Your task to perform on an android device: Search for Italian restaurants on Maps Image 0: 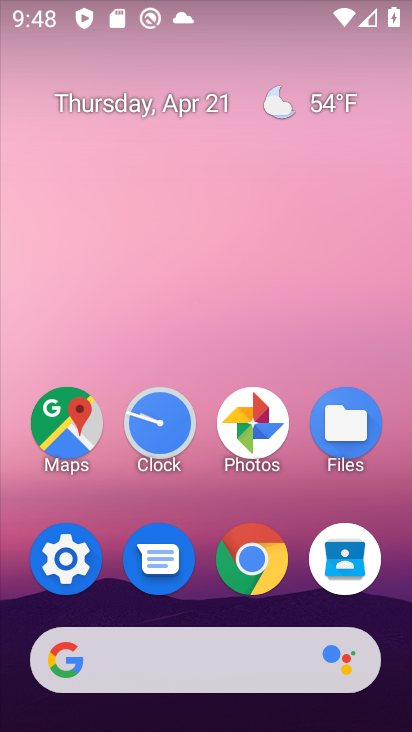
Step 0: click (65, 424)
Your task to perform on an android device: Search for Italian restaurants on Maps Image 1: 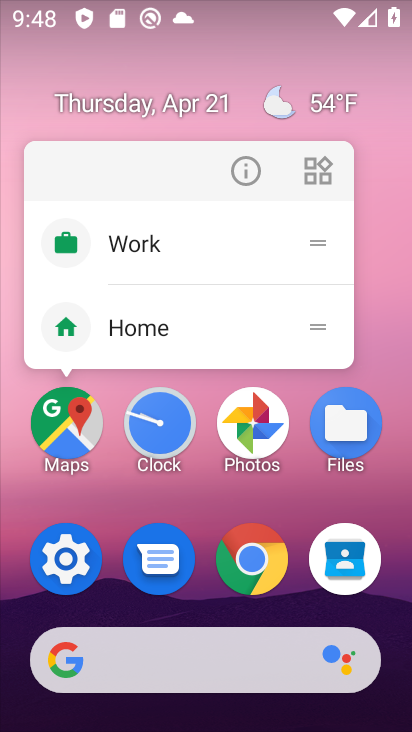
Step 1: click (60, 434)
Your task to perform on an android device: Search for Italian restaurants on Maps Image 2: 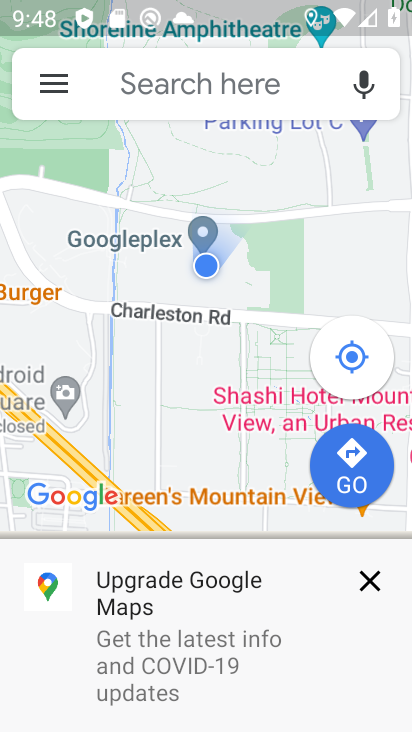
Step 2: click (197, 82)
Your task to perform on an android device: Search for Italian restaurants on Maps Image 3: 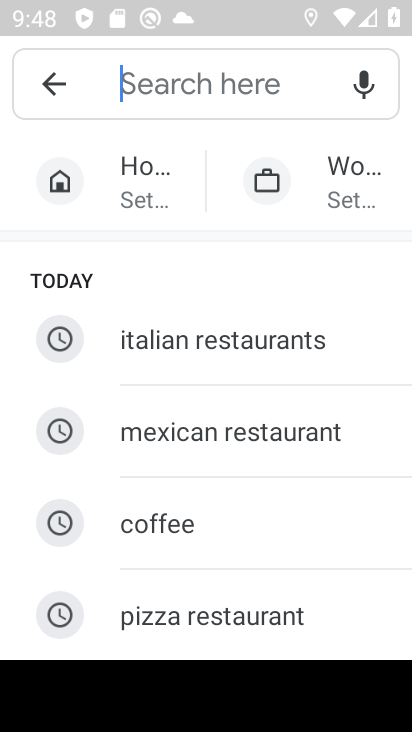
Step 3: click (230, 340)
Your task to perform on an android device: Search for Italian restaurants on Maps Image 4: 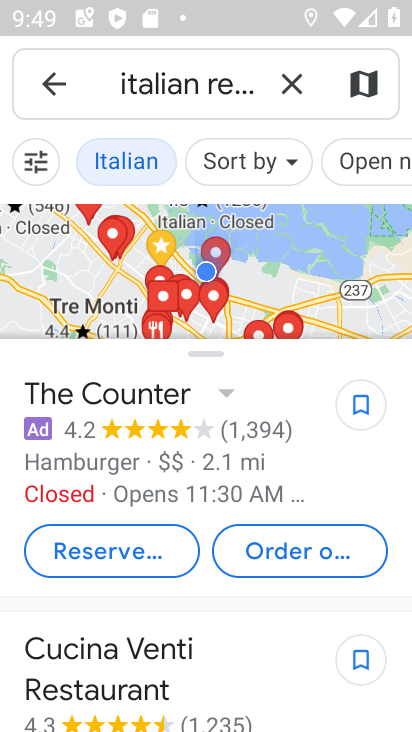
Step 4: task complete